Your task to perform on an android device: read, delete, or share a saved page in the chrome app Image 0: 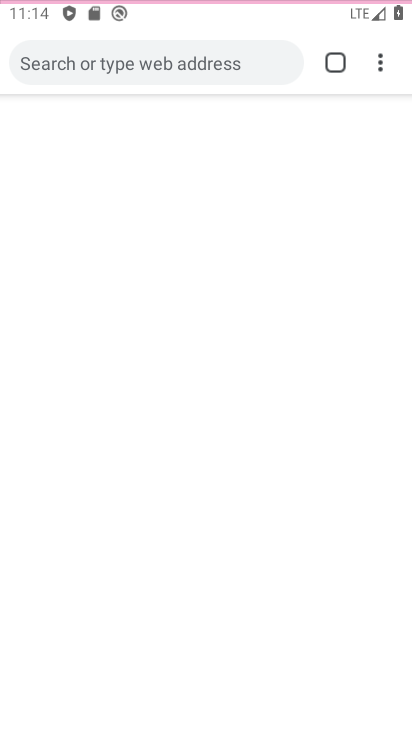
Step 0: drag from (197, 635) to (205, 5)
Your task to perform on an android device: read, delete, or share a saved page in the chrome app Image 1: 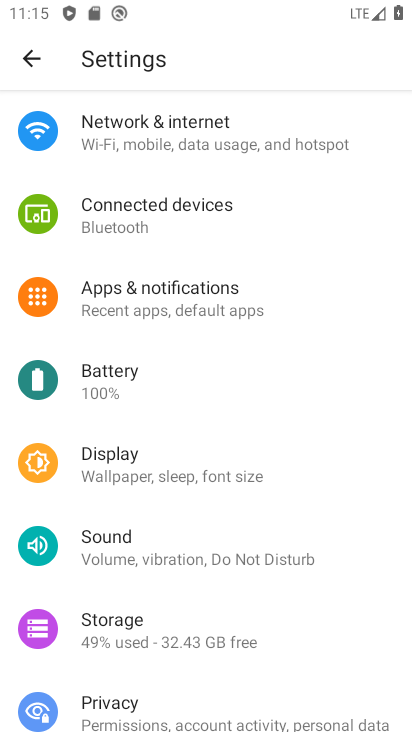
Step 1: press home button
Your task to perform on an android device: read, delete, or share a saved page in the chrome app Image 2: 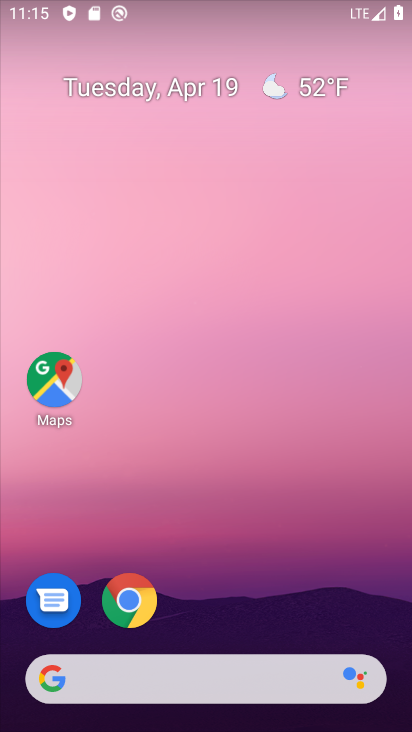
Step 2: click (149, 590)
Your task to perform on an android device: read, delete, or share a saved page in the chrome app Image 3: 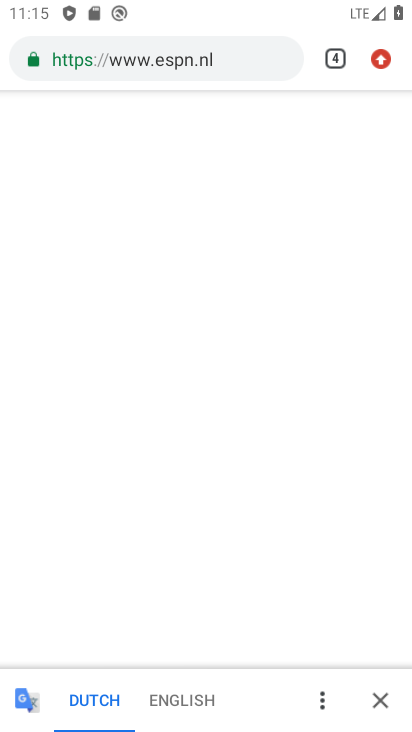
Step 3: click (371, 72)
Your task to perform on an android device: read, delete, or share a saved page in the chrome app Image 4: 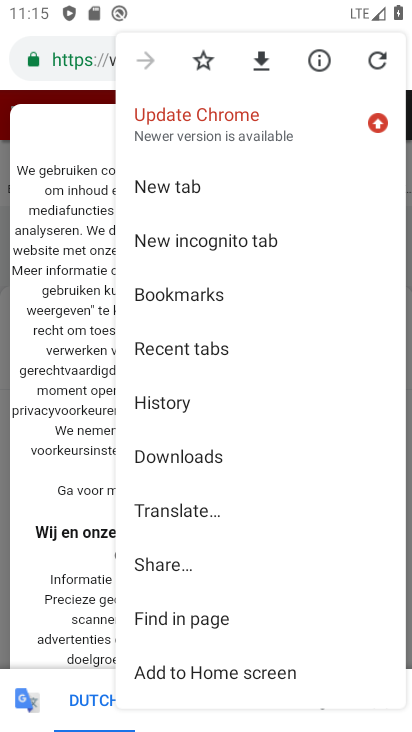
Step 4: click (203, 465)
Your task to perform on an android device: read, delete, or share a saved page in the chrome app Image 5: 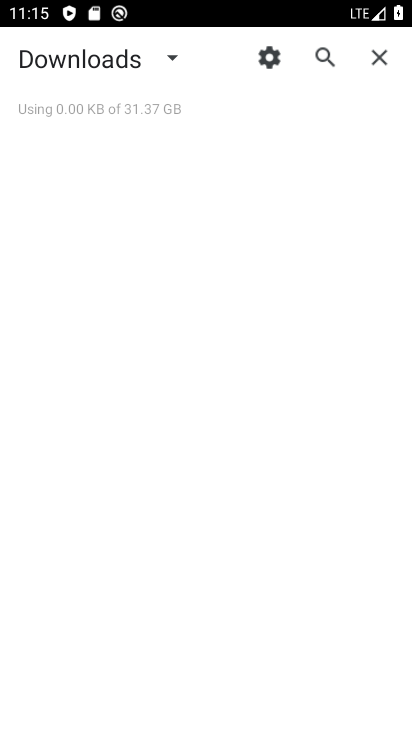
Step 5: task complete